Your task to perform on an android device: set the stopwatch Image 0: 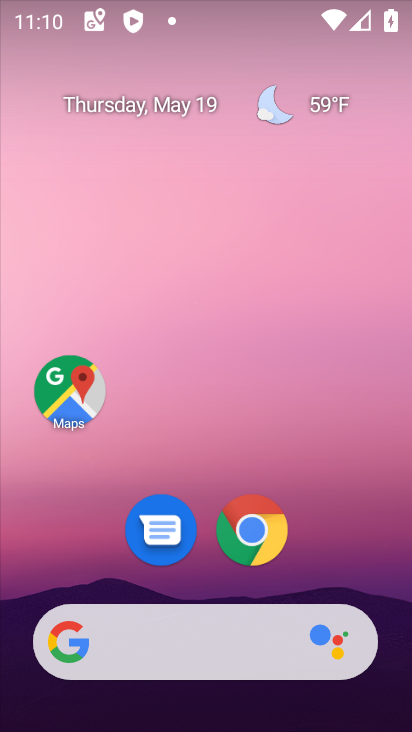
Step 0: drag from (324, 542) to (345, 126)
Your task to perform on an android device: set the stopwatch Image 1: 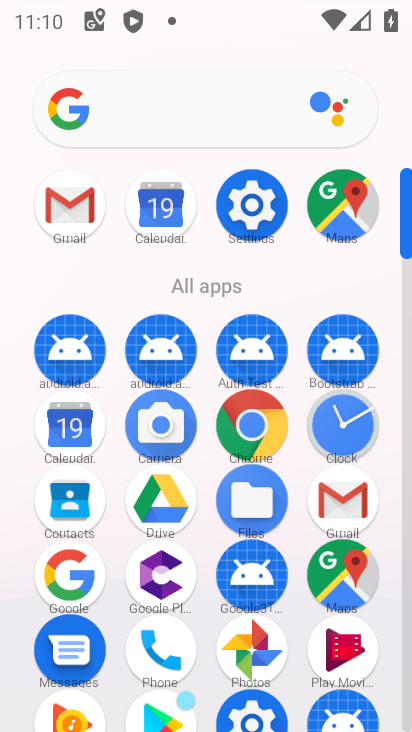
Step 1: drag from (374, 622) to (365, 274)
Your task to perform on an android device: set the stopwatch Image 2: 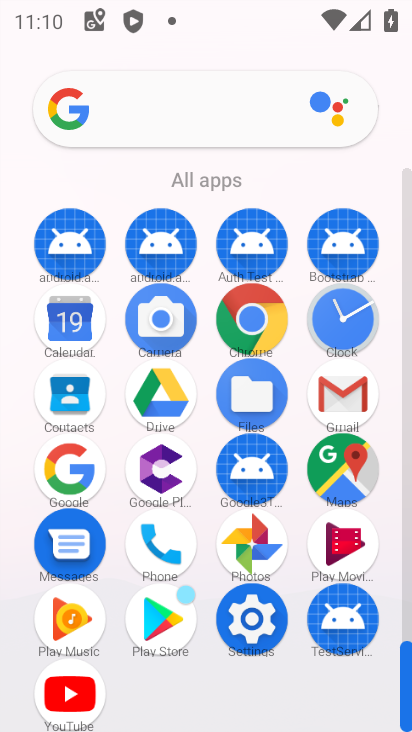
Step 2: click (341, 301)
Your task to perform on an android device: set the stopwatch Image 3: 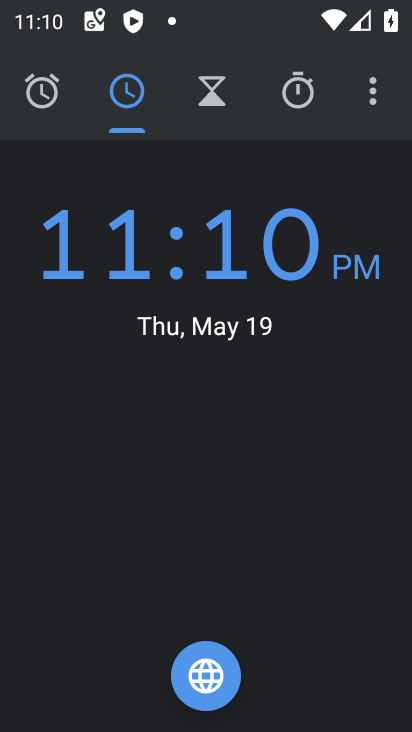
Step 3: click (301, 101)
Your task to perform on an android device: set the stopwatch Image 4: 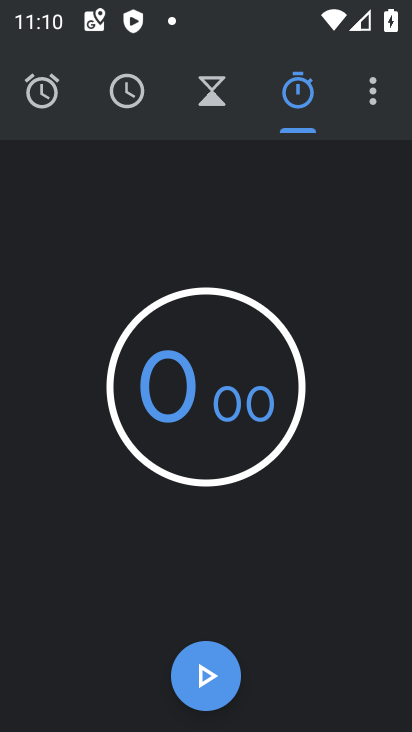
Step 4: click (209, 675)
Your task to perform on an android device: set the stopwatch Image 5: 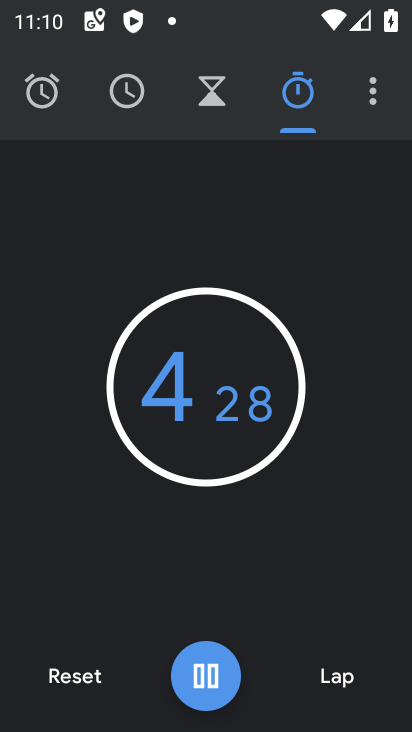
Step 5: click (210, 674)
Your task to perform on an android device: set the stopwatch Image 6: 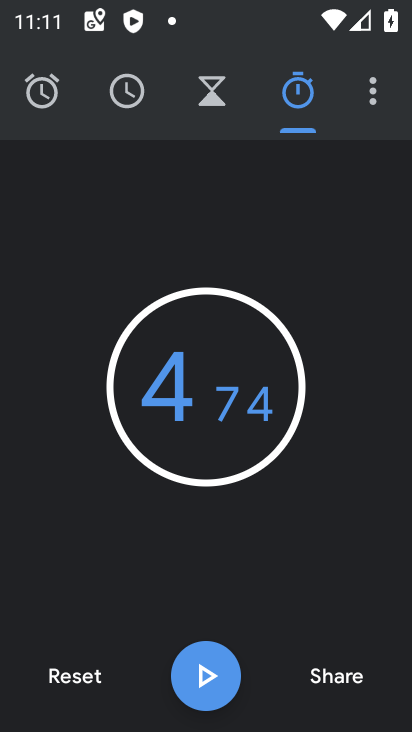
Step 6: task complete